Your task to perform on an android device: Clear the shopping cart on target. Search for "dell alienware" on target, select the first entry, add it to the cart, then select checkout. Image 0: 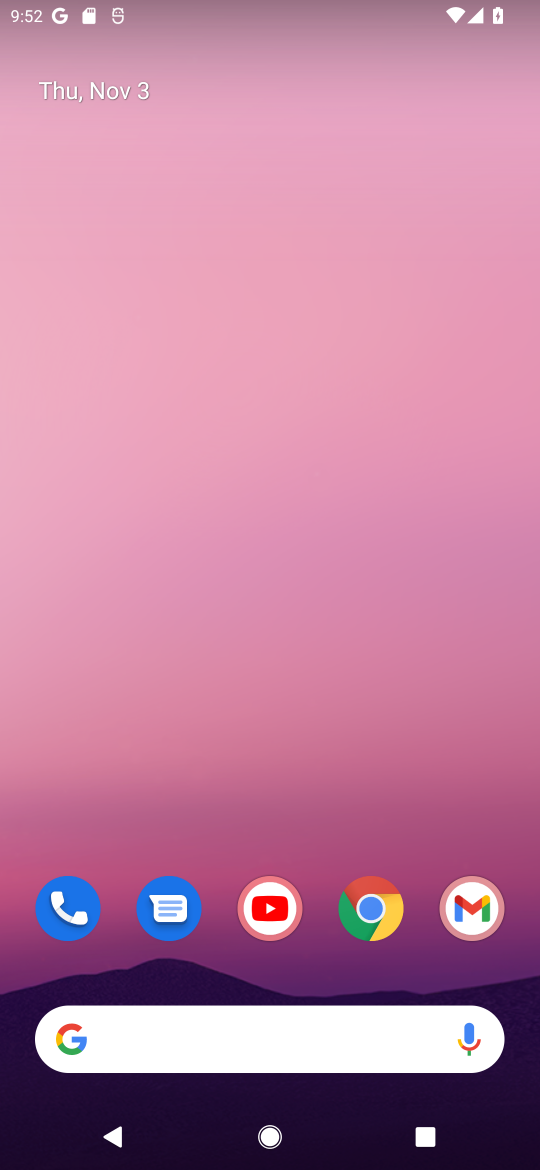
Step 0: click (363, 917)
Your task to perform on an android device: Clear the shopping cart on target. Search for "dell alienware" on target, select the first entry, add it to the cart, then select checkout. Image 1: 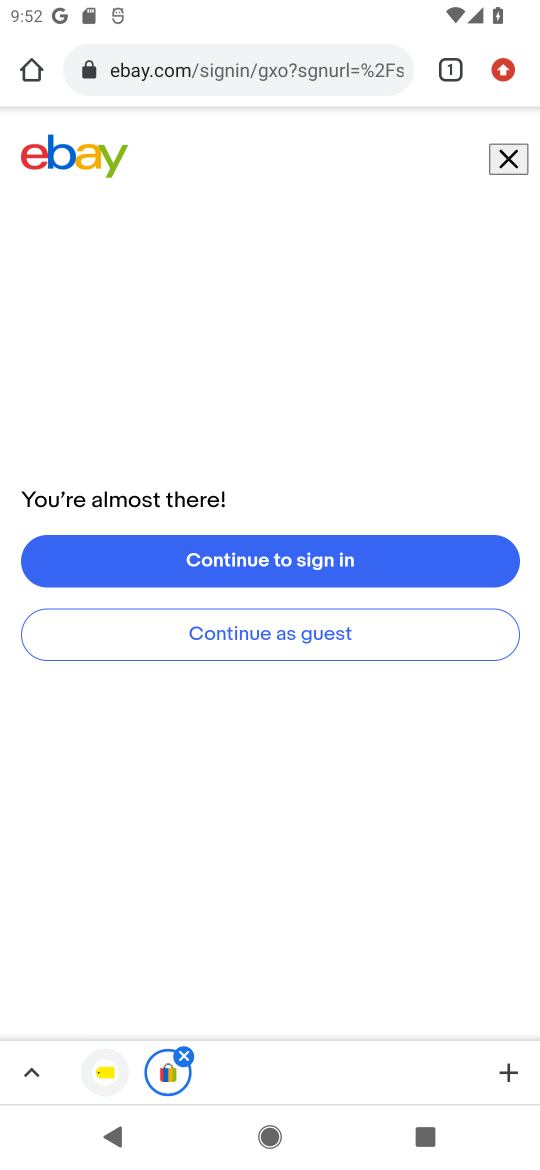
Step 1: click (338, 54)
Your task to perform on an android device: Clear the shopping cart on target. Search for "dell alienware" on target, select the first entry, add it to the cart, then select checkout. Image 2: 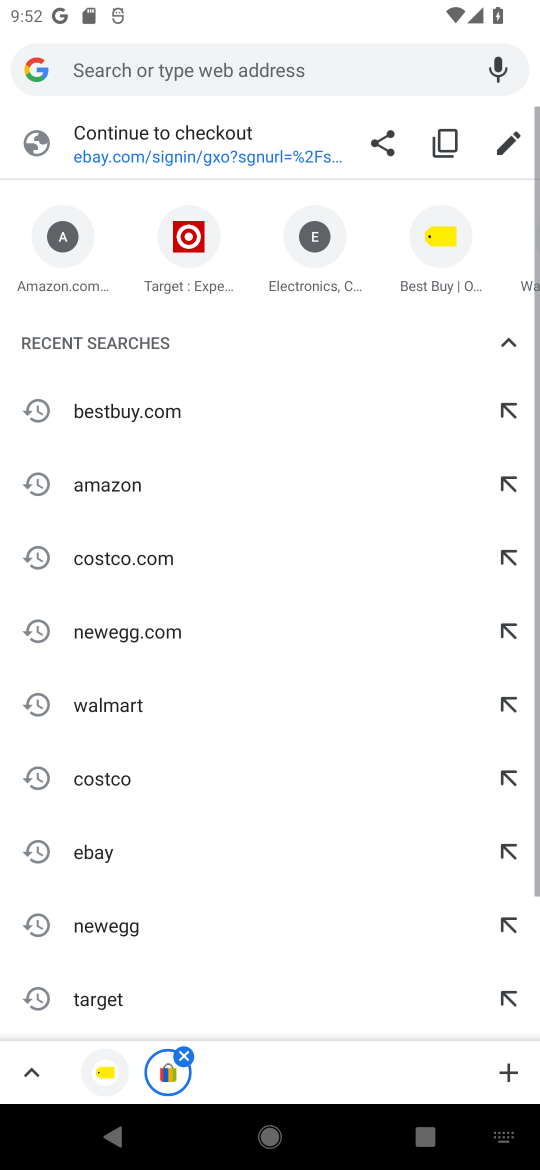
Step 2: click (198, 251)
Your task to perform on an android device: Clear the shopping cart on target. Search for "dell alienware" on target, select the first entry, add it to the cart, then select checkout. Image 3: 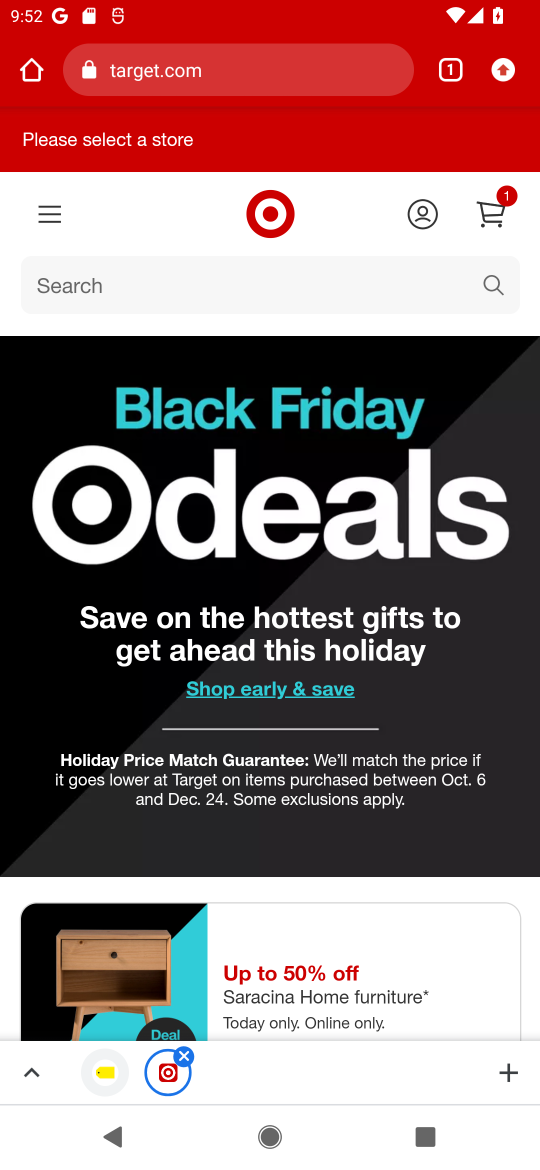
Step 3: click (499, 217)
Your task to perform on an android device: Clear the shopping cart on target. Search for "dell alienware" on target, select the first entry, add it to the cart, then select checkout. Image 4: 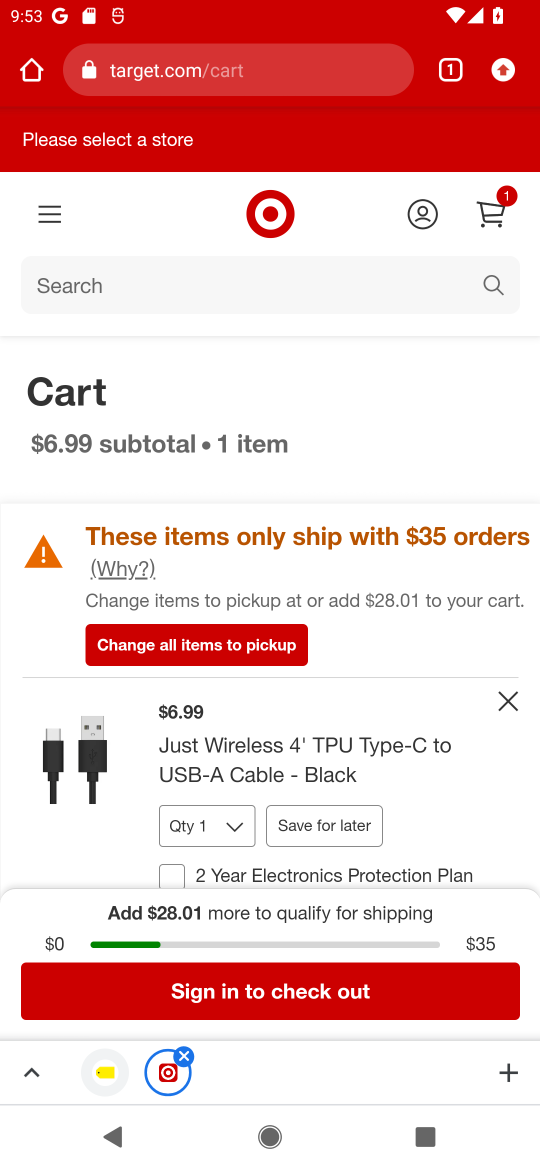
Step 4: click (509, 697)
Your task to perform on an android device: Clear the shopping cart on target. Search for "dell alienware" on target, select the first entry, add it to the cart, then select checkout. Image 5: 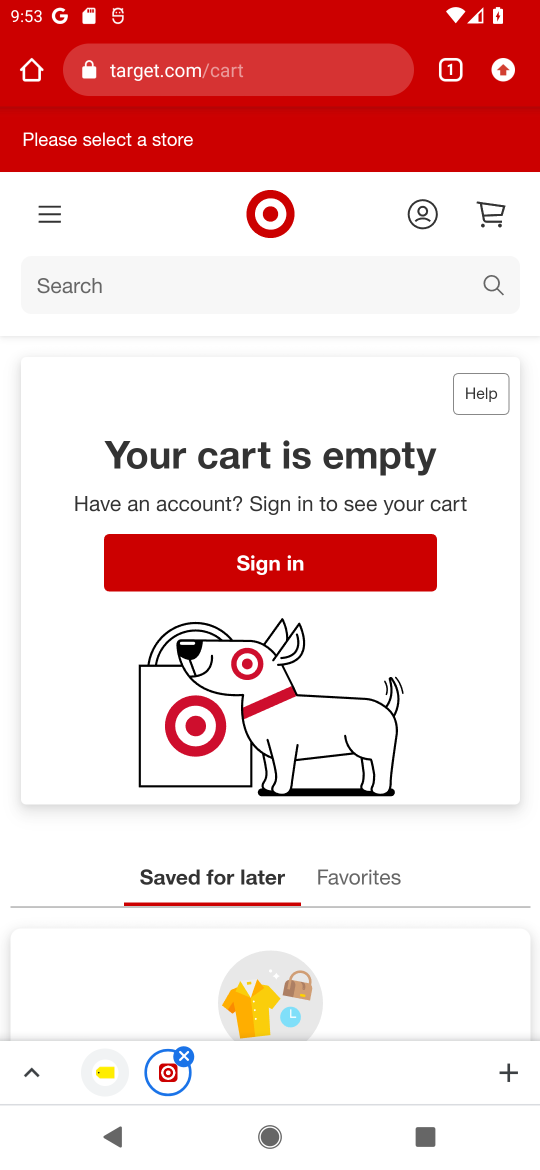
Step 5: click (495, 287)
Your task to perform on an android device: Clear the shopping cart on target. Search for "dell alienware" on target, select the first entry, add it to the cart, then select checkout. Image 6: 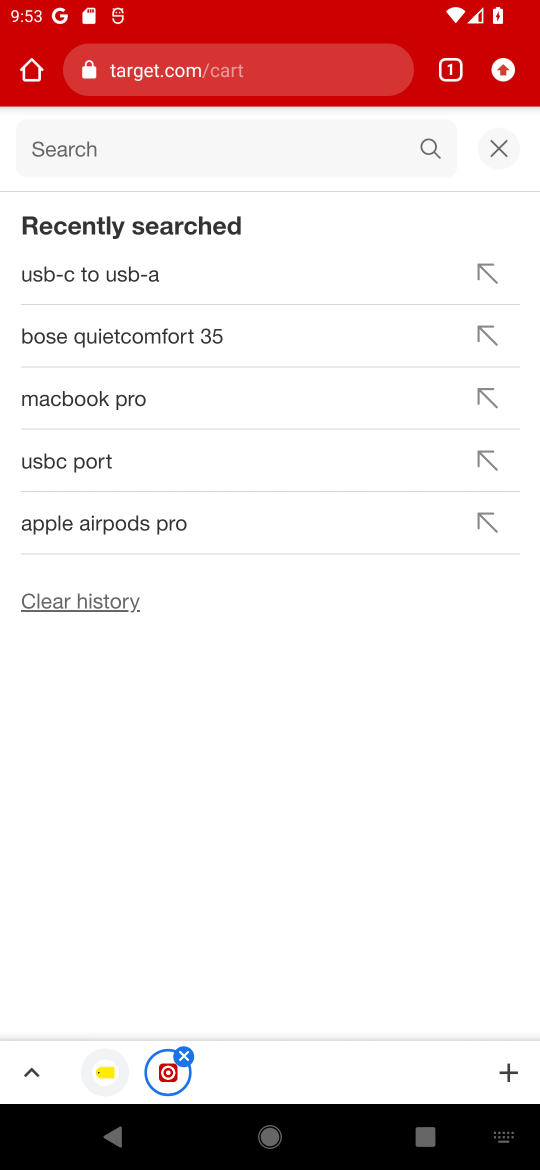
Step 6: type "dell alienware"
Your task to perform on an android device: Clear the shopping cart on target. Search for "dell alienware" on target, select the first entry, add it to the cart, then select checkout. Image 7: 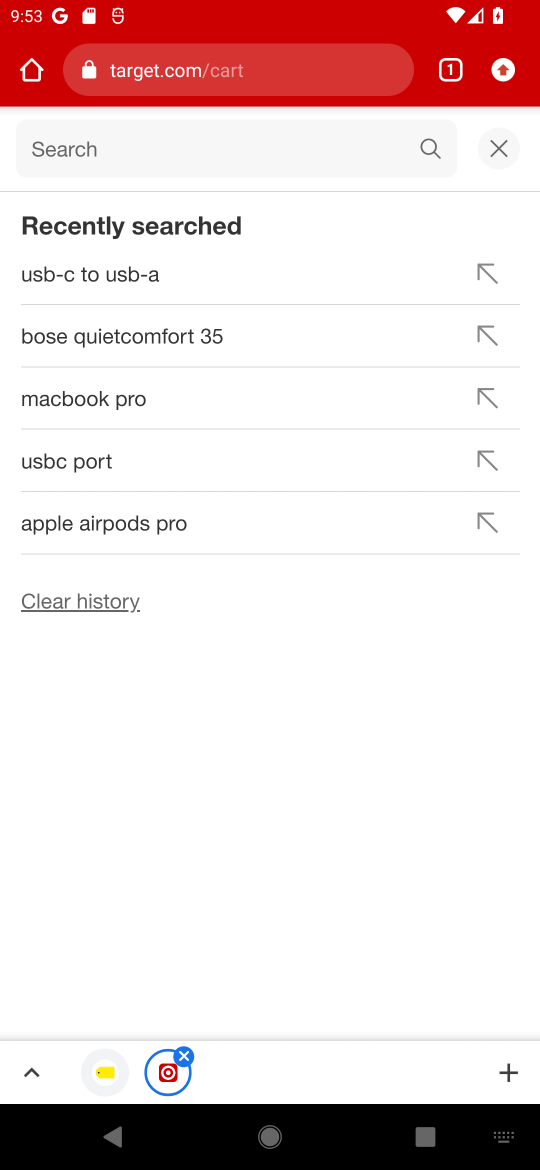
Step 7: press enter
Your task to perform on an android device: Clear the shopping cart on target. Search for "dell alienware" on target, select the first entry, add it to the cart, then select checkout. Image 8: 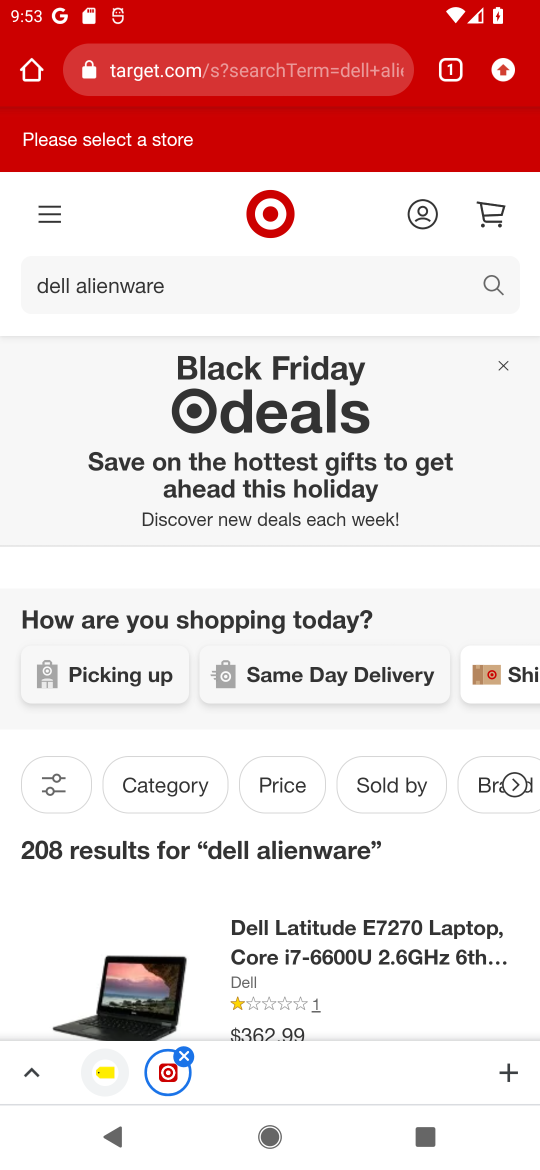
Step 8: drag from (374, 925) to (368, 643)
Your task to perform on an android device: Clear the shopping cart on target. Search for "dell alienware" on target, select the first entry, add it to the cart, then select checkout. Image 9: 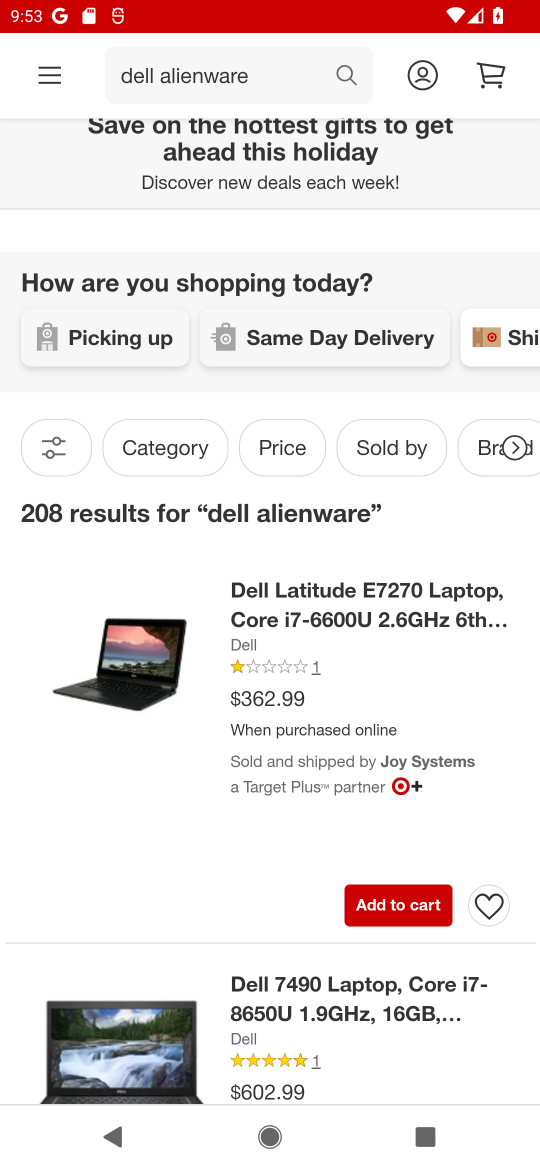
Step 9: click (126, 601)
Your task to perform on an android device: Clear the shopping cart on target. Search for "dell alienware" on target, select the first entry, add it to the cart, then select checkout. Image 10: 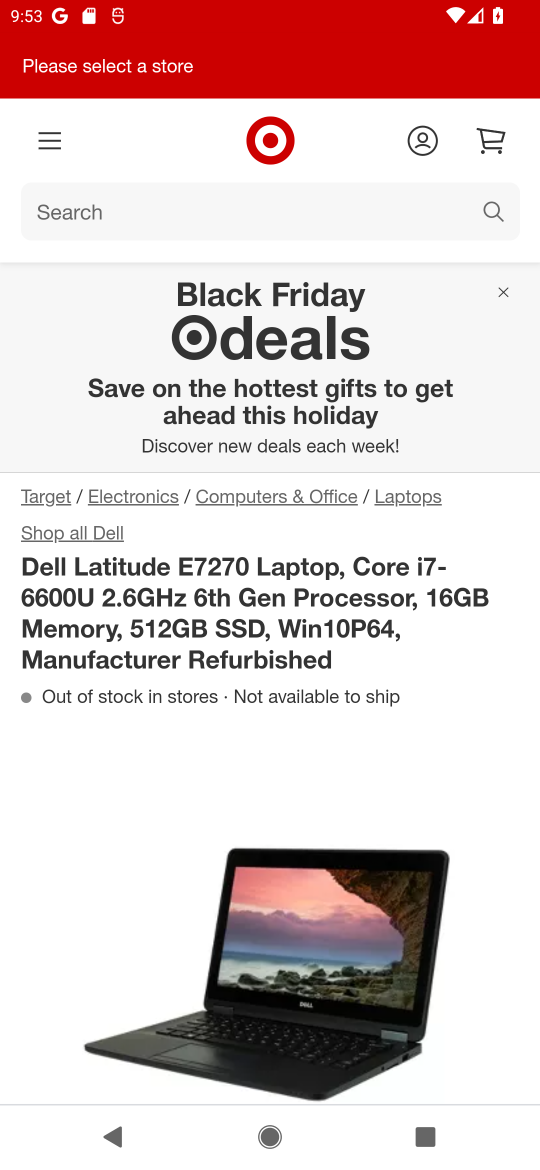
Step 10: drag from (421, 909) to (406, 344)
Your task to perform on an android device: Clear the shopping cart on target. Search for "dell alienware" on target, select the first entry, add it to the cart, then select checkout. Image 11: 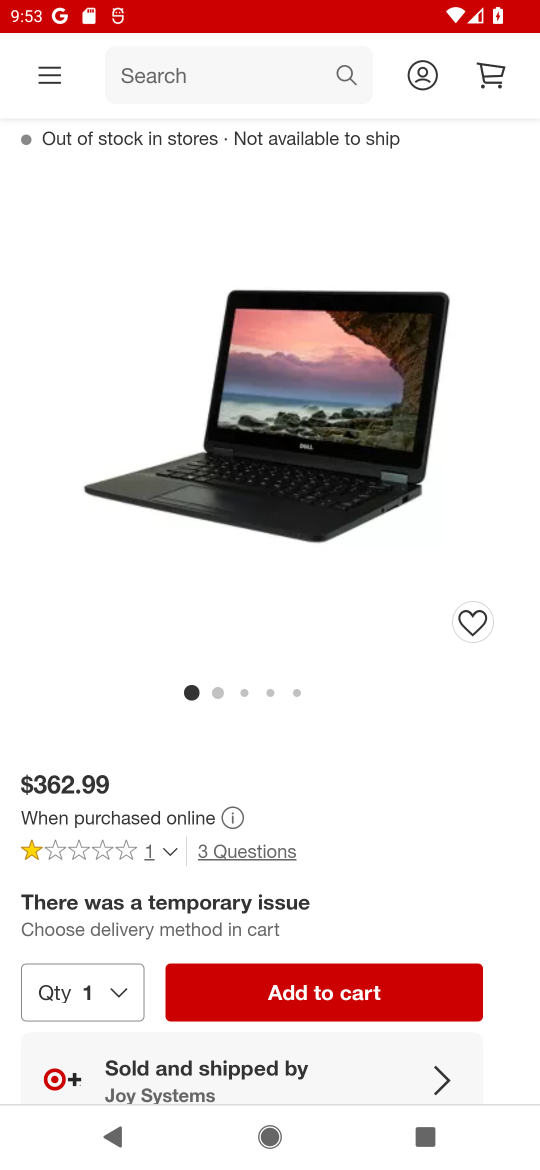
Step 11: click (419, 978)
Your task to perform on an android device: Clear the shopping cart on target. Search for "dell alienware" on target, select the first entry, add it to the cart, then select checkout. Image 12: 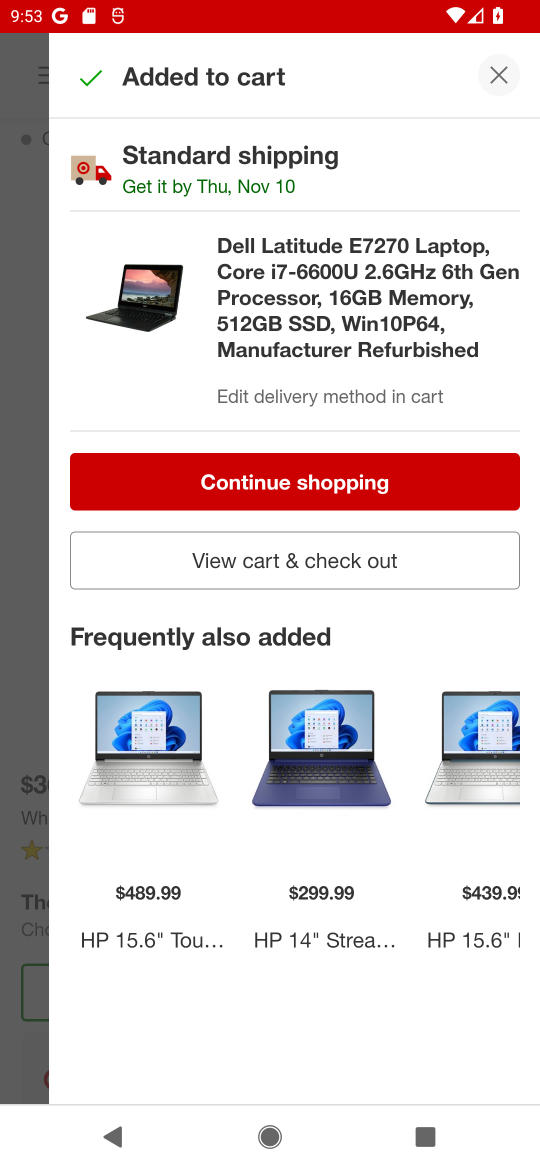
Step 12: click (504, 69)
Your task to perform on an android device: Clear the shopping cart on target. Search for "dell alienware" on target, select the first entry, add it to the cart, then select checkout. Image 13: 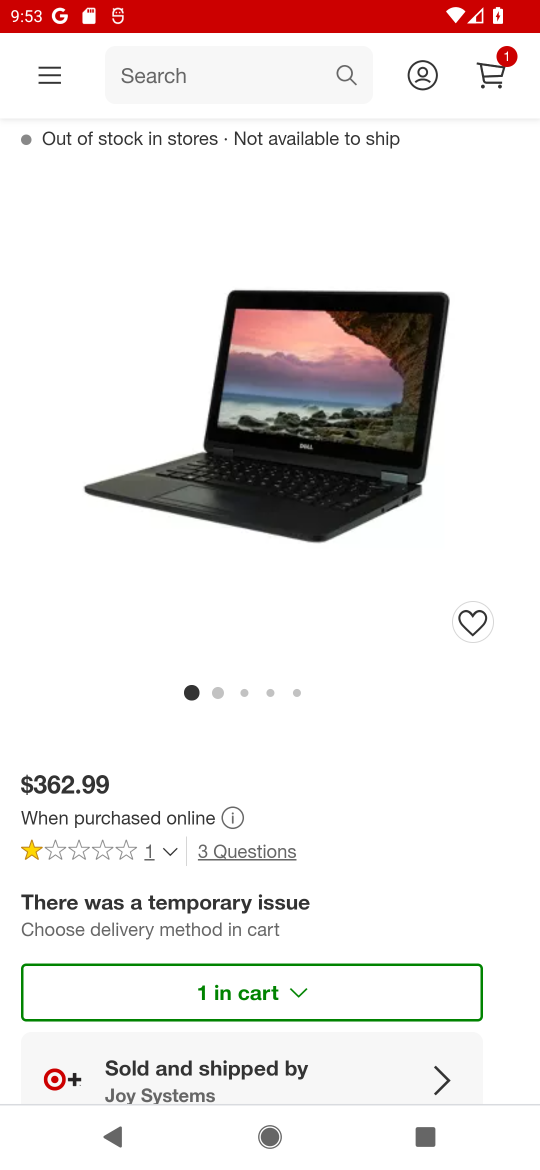
Step 13: click (484, 74)
Your task to perform on an android device: Clear the shopping cart on target. Search for "dell alienware" on target, select the first entry, add it to the cart, then select checkout. Image 14: 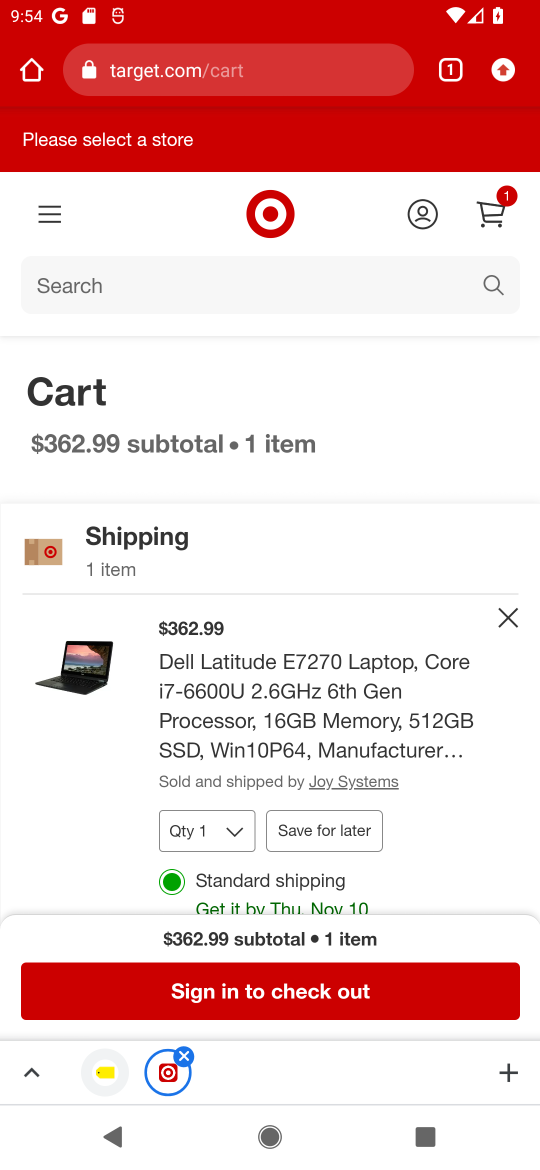
Step 14: click (336, 989)
Your task to perform on an android device: Clear the shopping cart on target. Search for "dell alienware" on target, select the first entry, add it to the cart, then select checkout. Image 15: 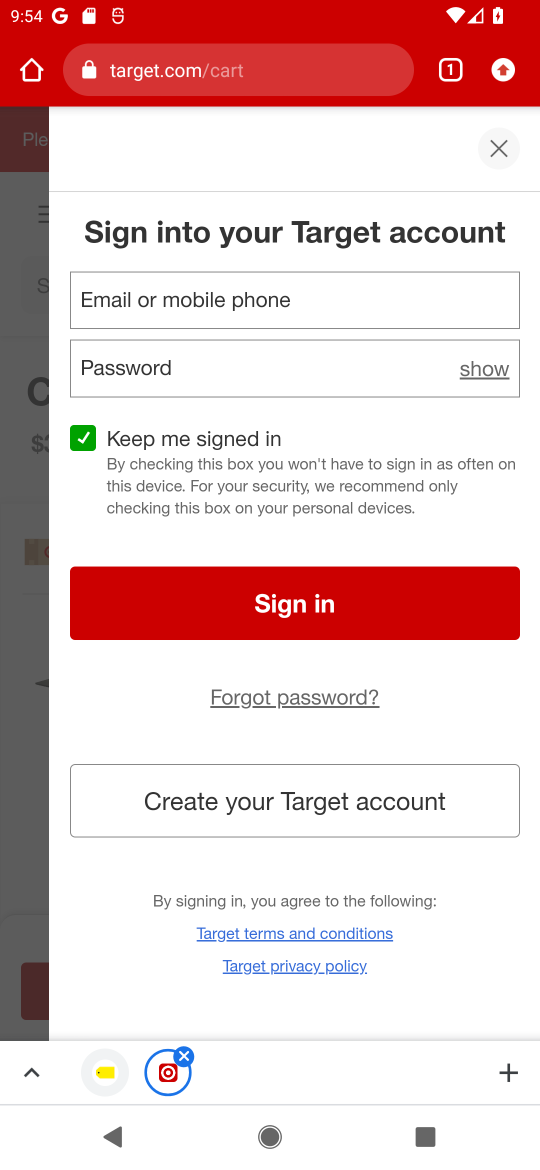
Step 15: task complete